Your task to perform on an android device: Go to location settings Image 0: 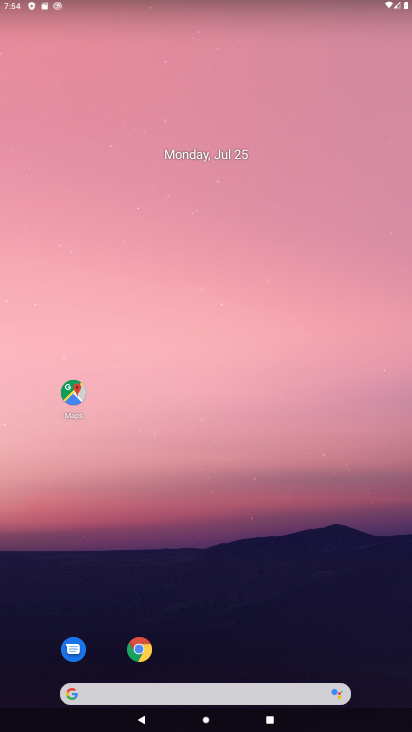
Step 0: drag from (225, 614) to (206, 141)
Your task to perform on an android device: Go to location settings Image 1: 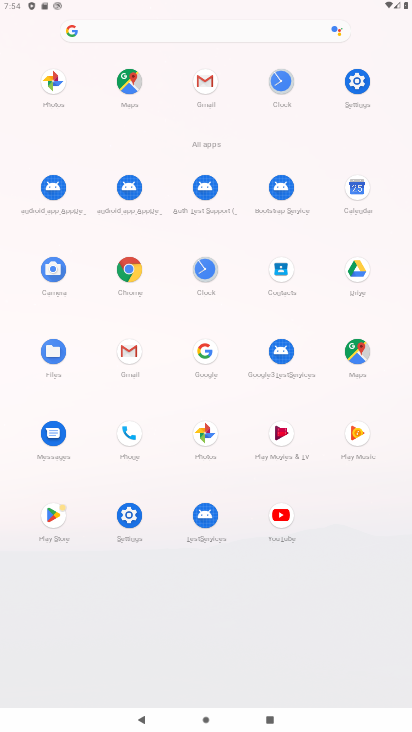
Step 1: click (130, 512)
Your task to perform on an android device: Go to location settings Image 2: 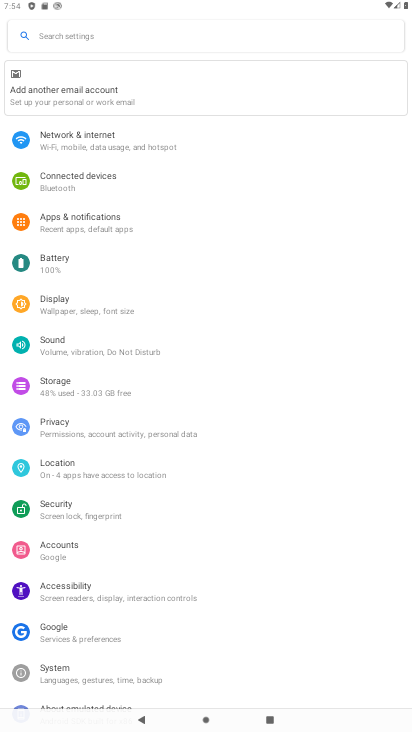
Step 2: click (114, 478)
Your task to perform on an android device: Go to location settings Image 3: 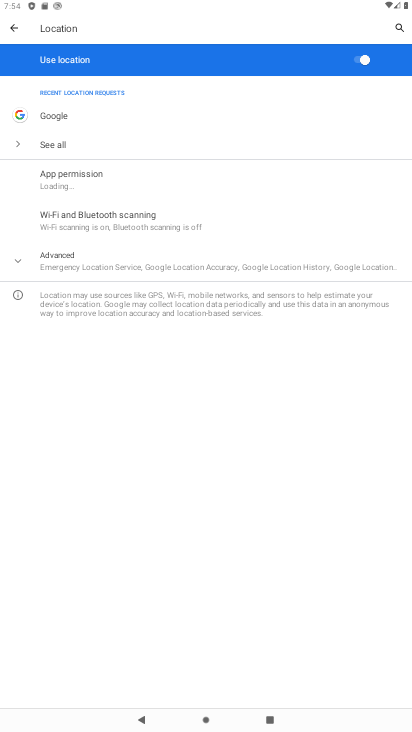
Step 3: task complete